Your task to perform on an android device: Go to network settings Image 0: 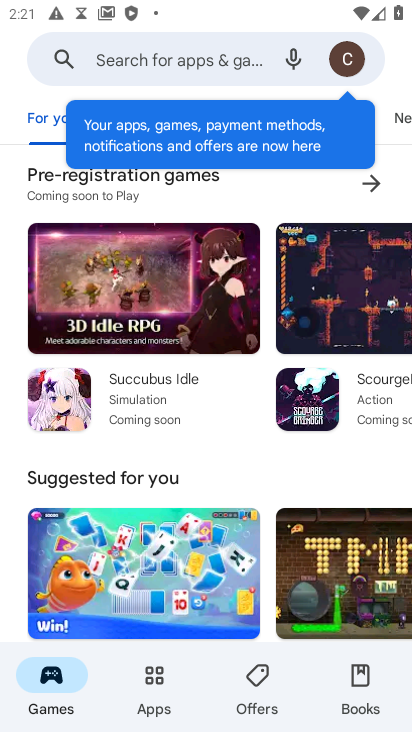
Step 0: press home button
Your task to perform on an android device: Go to network settings Image 1: 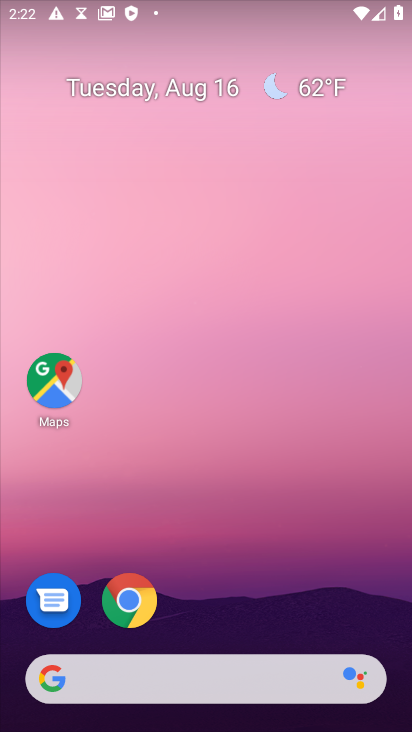
Step 1: drag from (225, 675) to (203, 187)
Your task to perform on an android device: Go to network settings Image 2: 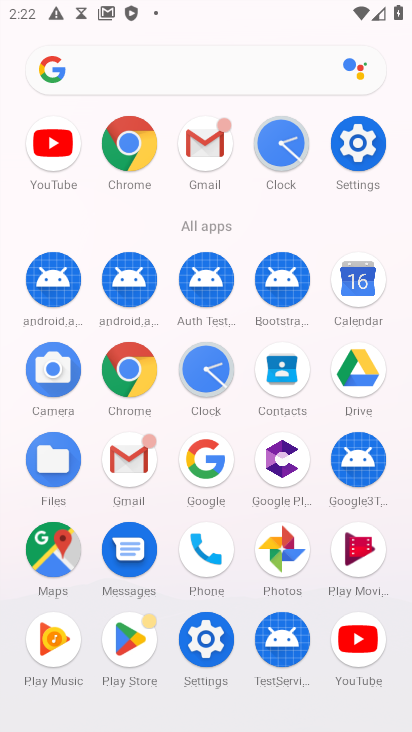
Step 2: click (376, 167)
Your task to perform on an android device: Go to network settings Image 3: 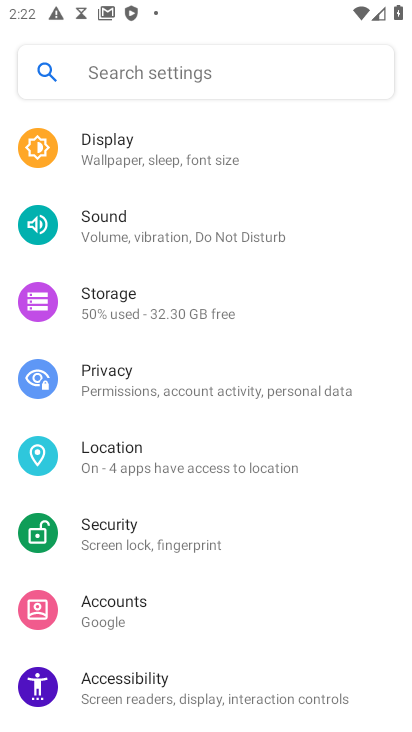
Step 3: drag from (124, 149) to (201, 626)
Your task to perform on an android device: Go to network settings Image 4: 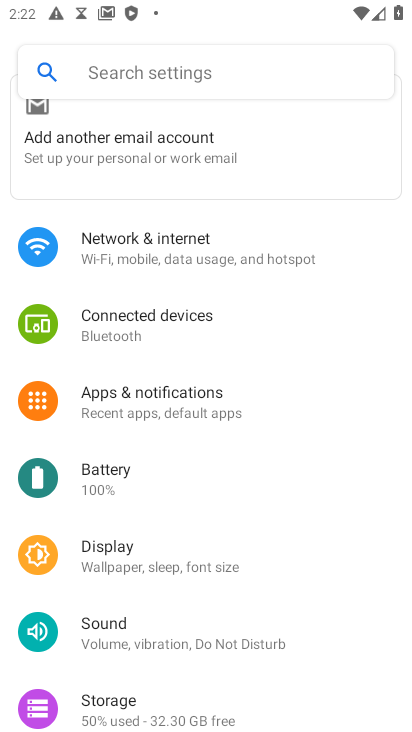
Step 4: click (145, 251)
Your task to perform on an android device: Go to network settings Image 5: 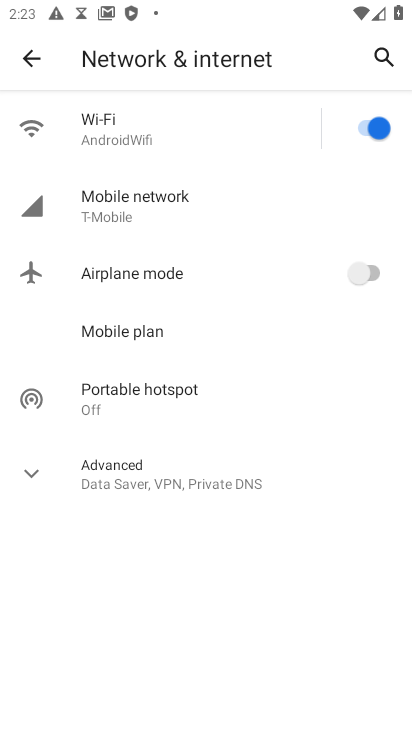
Step 5: task complete